Your task to perform on an android device: change text size in settings app Image 0: 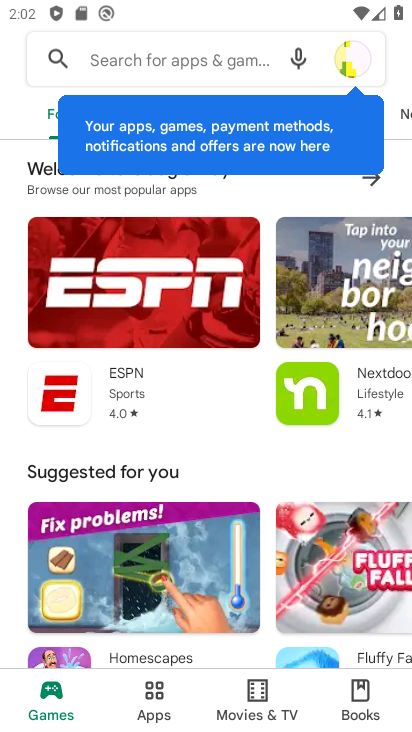
Step 0: press home button
Your task to perform on an android device: change text size in settings app Image 1: 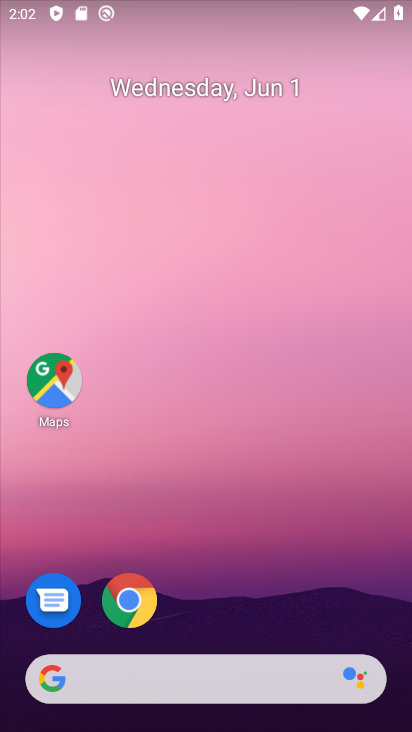
Step 1: drag from (261, 546) to (206, 173)
Your task to perform on an android device: change text size in settings app Image 2: 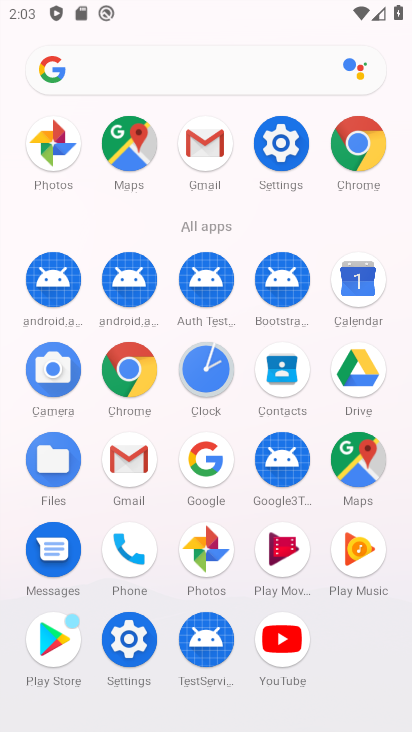
Step 2: click (285, 137)
Your task to perform on an android device: change text size in settings app Image 3: 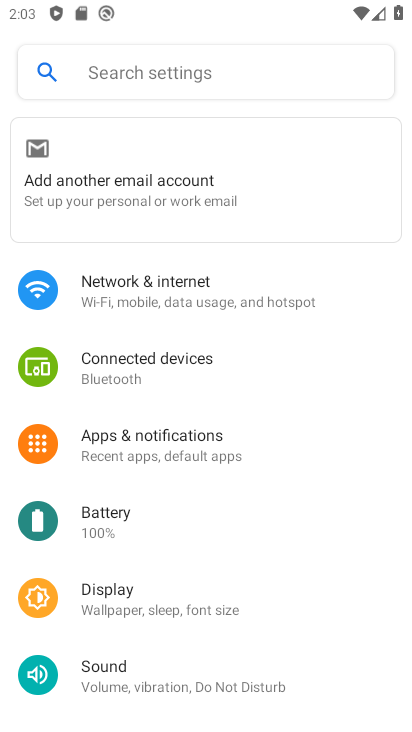
Step 3: click (176, 602)
Your task to perform on an android device: change text size in settings app Image 4: 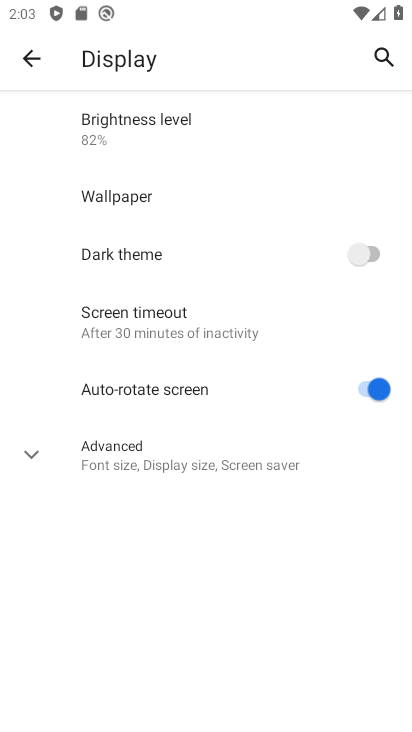
Step 4: click (192, 463)
Your task to perform on an android device: change text size in settings app Image 5: 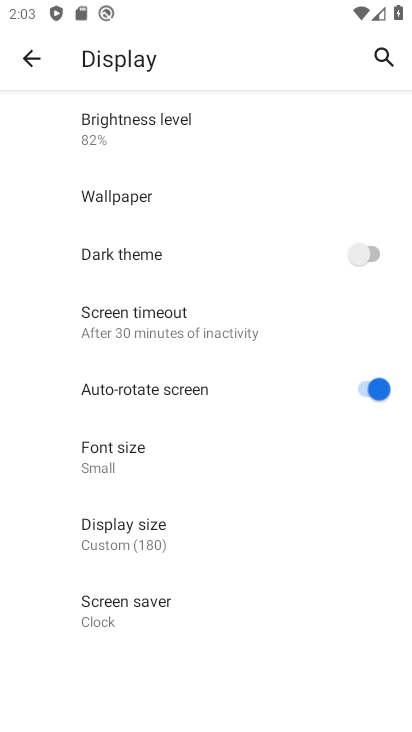
Step 5: click (186, 442)
Your task to perform on an android device: change text size in settings app Image 6: 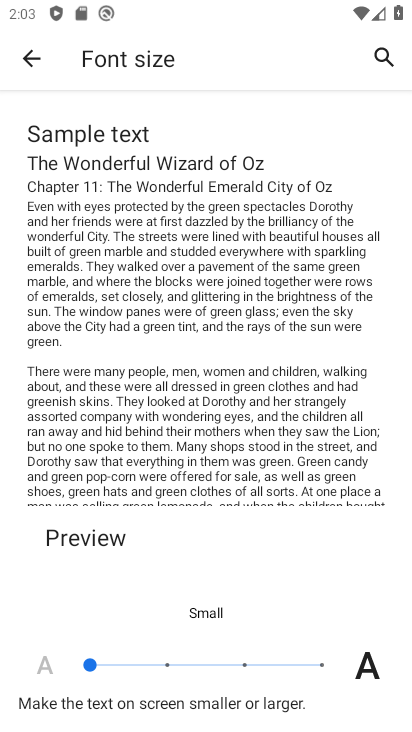
Step 6: click (169, 669)
Your task to perform on an android device: change text size in settings app Image 7: 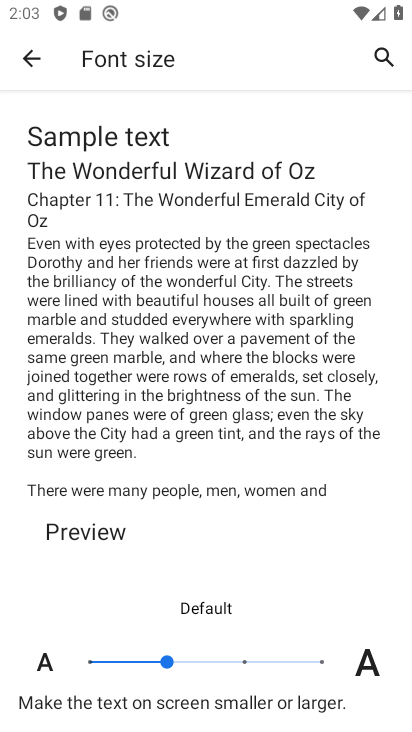
Step 7: task complete